Your task to perform on an android device: turn off priority inbox in the gmail app Image 0: 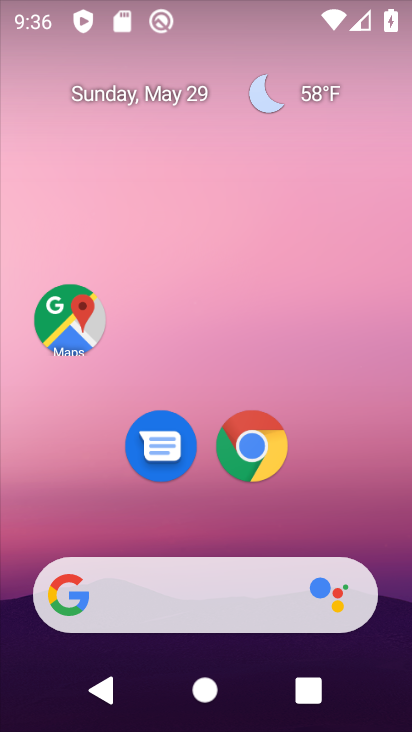
Step 0: drag from (227, 520) to (283, 83)
Your task to perform on an android device: turn off priority inbox in the gmail app Image 1: 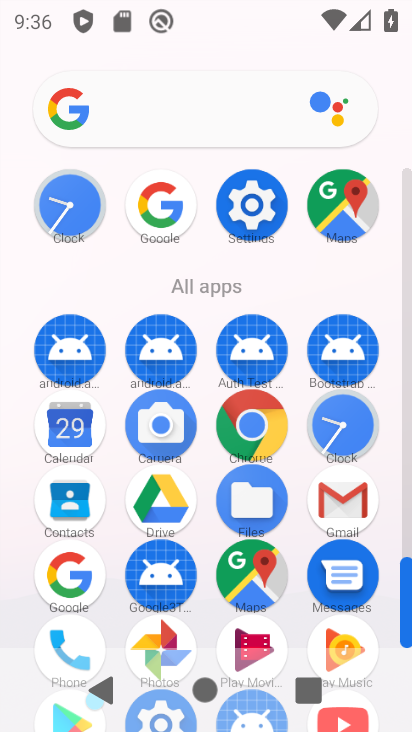
Step 1: click (348, 494)
Your task to perform on an android device: turn off priority inbox in the gmail app Image 2: 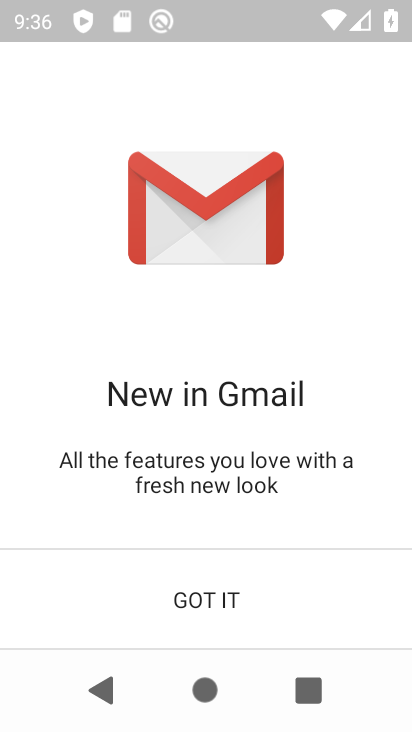
Step 2: click (192, 594)
Your task to perform on an android device: turn off priority inbox in the gmail app Image 3: 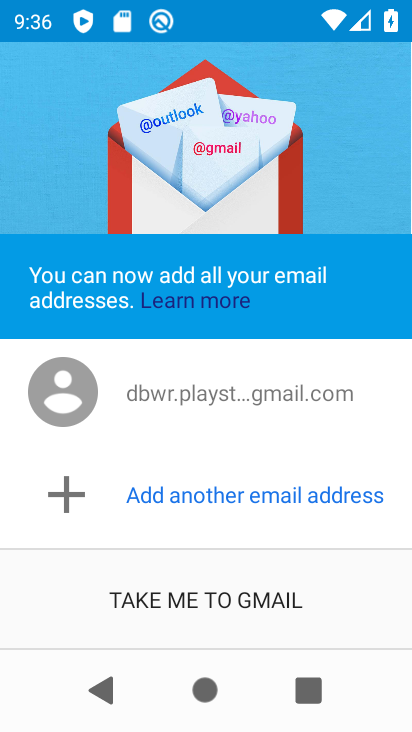
Step 3: click (190, 595)
Your task to perform on an android device: turn off priority inbox in the gmail app Image 4: 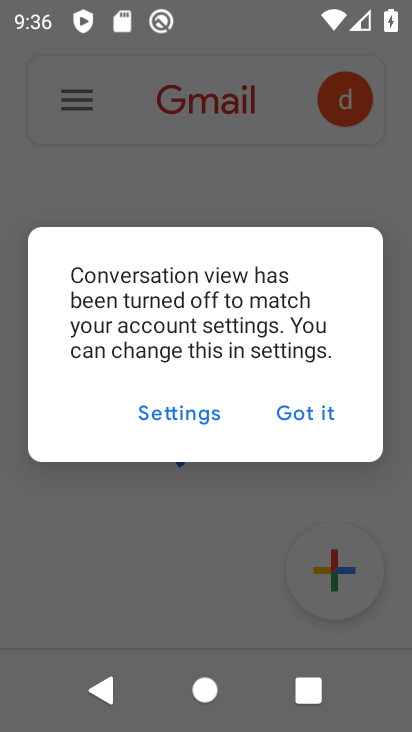
Step 4: click (302, 422)
Your task to perform on an android device: turn off priority inbox in the gmail app Image 5: 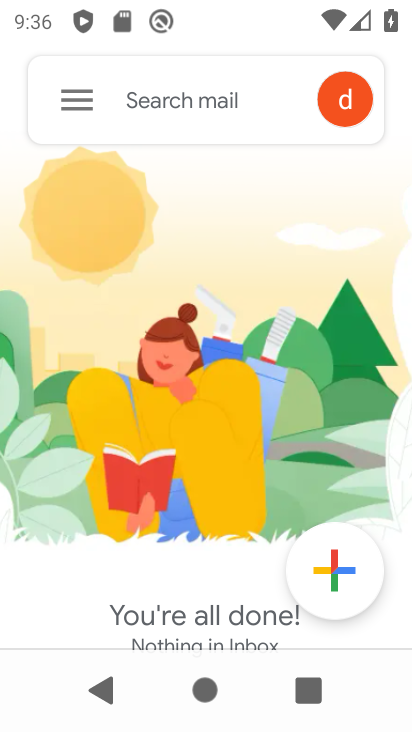
Step 5: click (64, 113)
Your task to perform on an android device: turn off priority inbox in the gmail app Image 6: 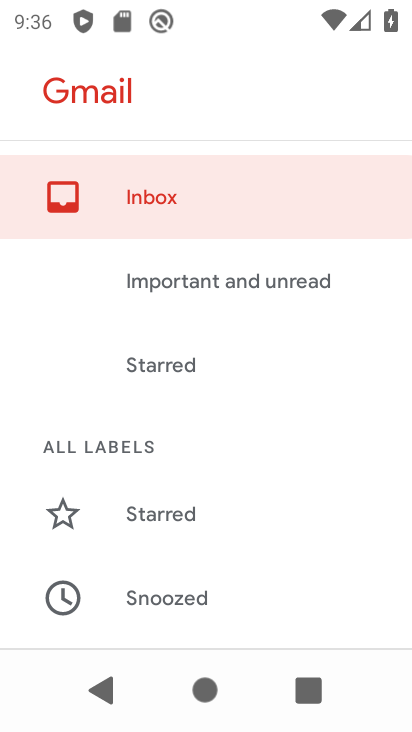
Step 6: drag from (196, 613) to (190, 206)
Your task to perform on an android device: turn off priority inbox in the gmail app Image 7: 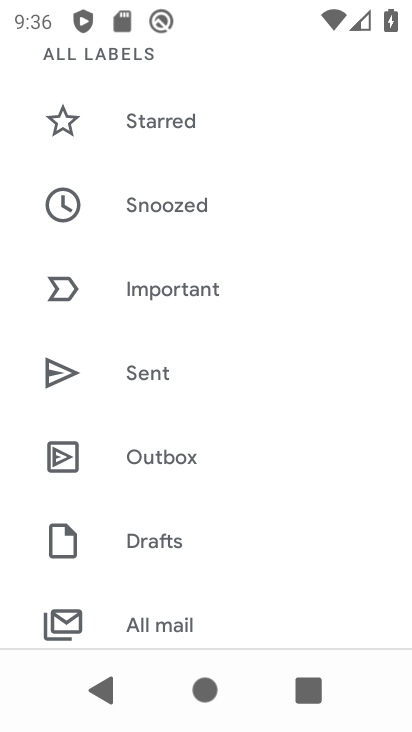
Step 7: drag from (180, 635) to (229, 281)
Your task to perform on an android device: turn off priority inbox in the gmail app Image 8: 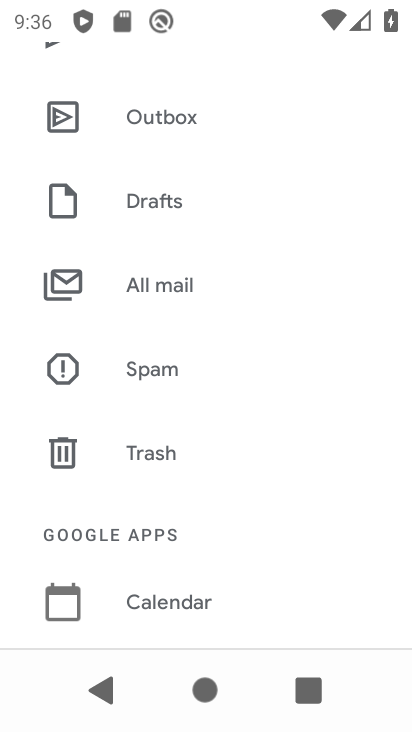
Step 8: drag from (186, 509) to (192, 306)
Your task to perform on an android device: turn off priority inbox in the gmail app Image 9: 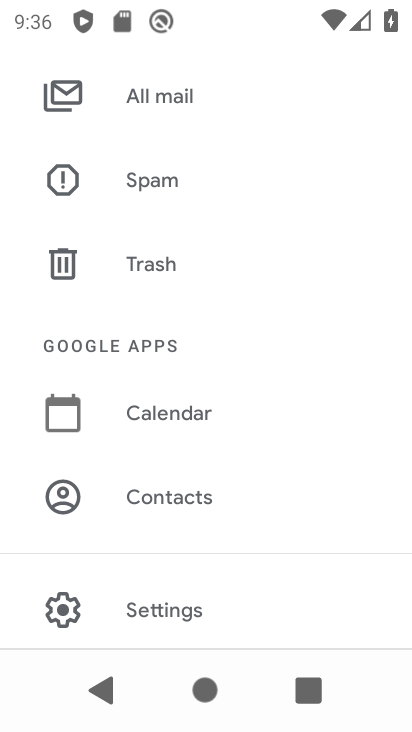
Step 9: click (181, 605)
Your task to perform on an android device: turn off priority inbox in the gmail app Image 10: 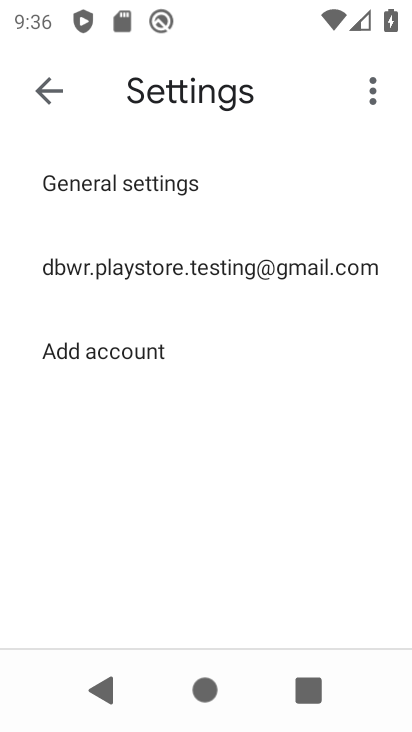
Step 10: click (149, 279)
Your task to perform on an android device: turn off priority inbox in the gmail app Image 11: 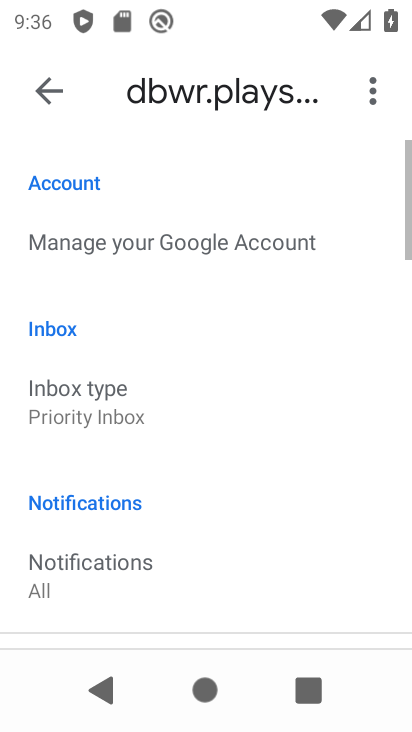
Step 11: click (119, 407)
Your task to perform on an android device: turn off priority inbox in the gmail app Image 12: 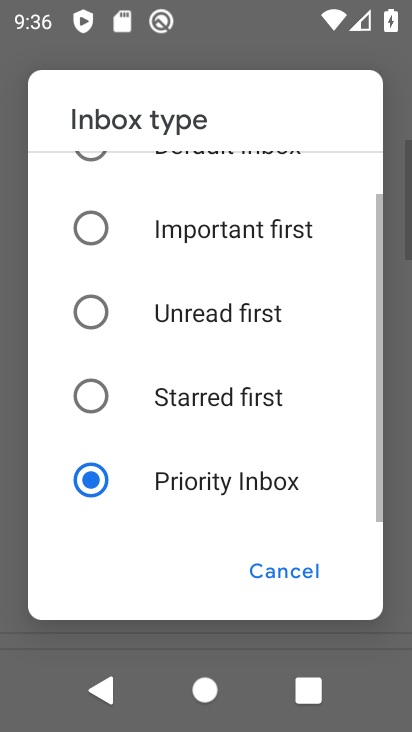
Step 12: click (171, 305)
Your task to perform on an android device: turn off priority inbox in the gmail app Image 13: 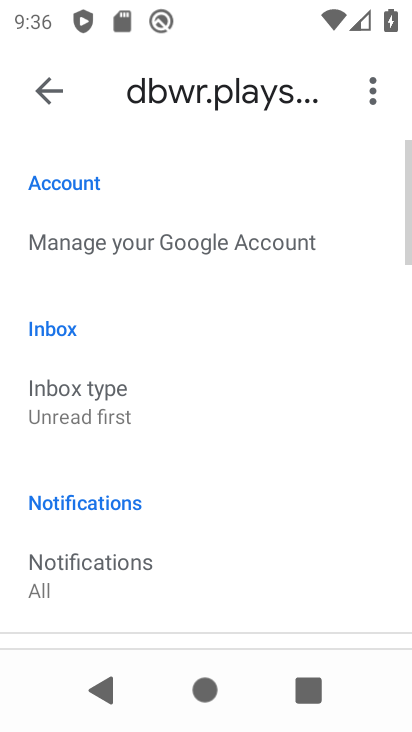
Step 13: task complete